Your task to perform on an android device: Check the settings for the Amazon Prime Video app Image 0: 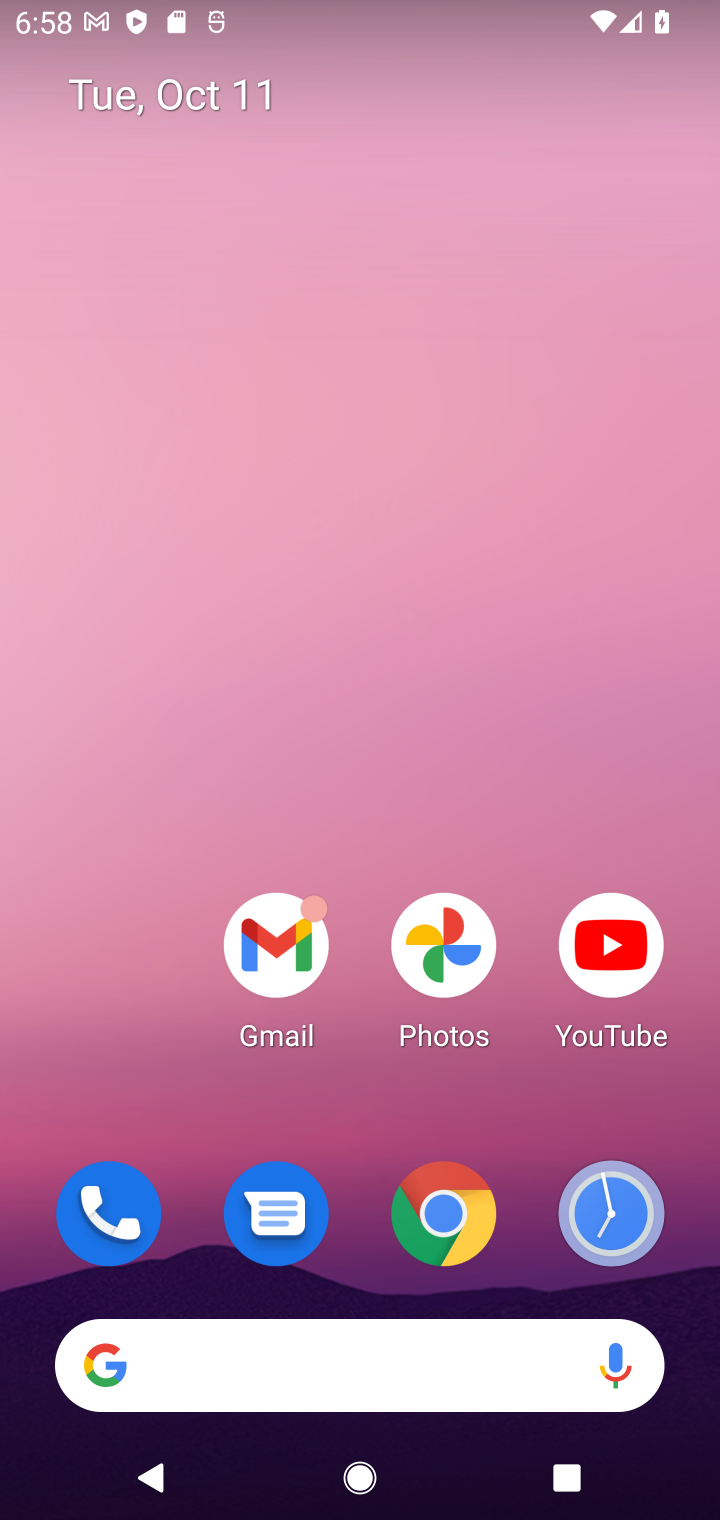
Step 0: drag from (381, 966) to (435, 355)
Your task to perform on an android device: Check the settings for the Amazon Prime Video app Image 1: 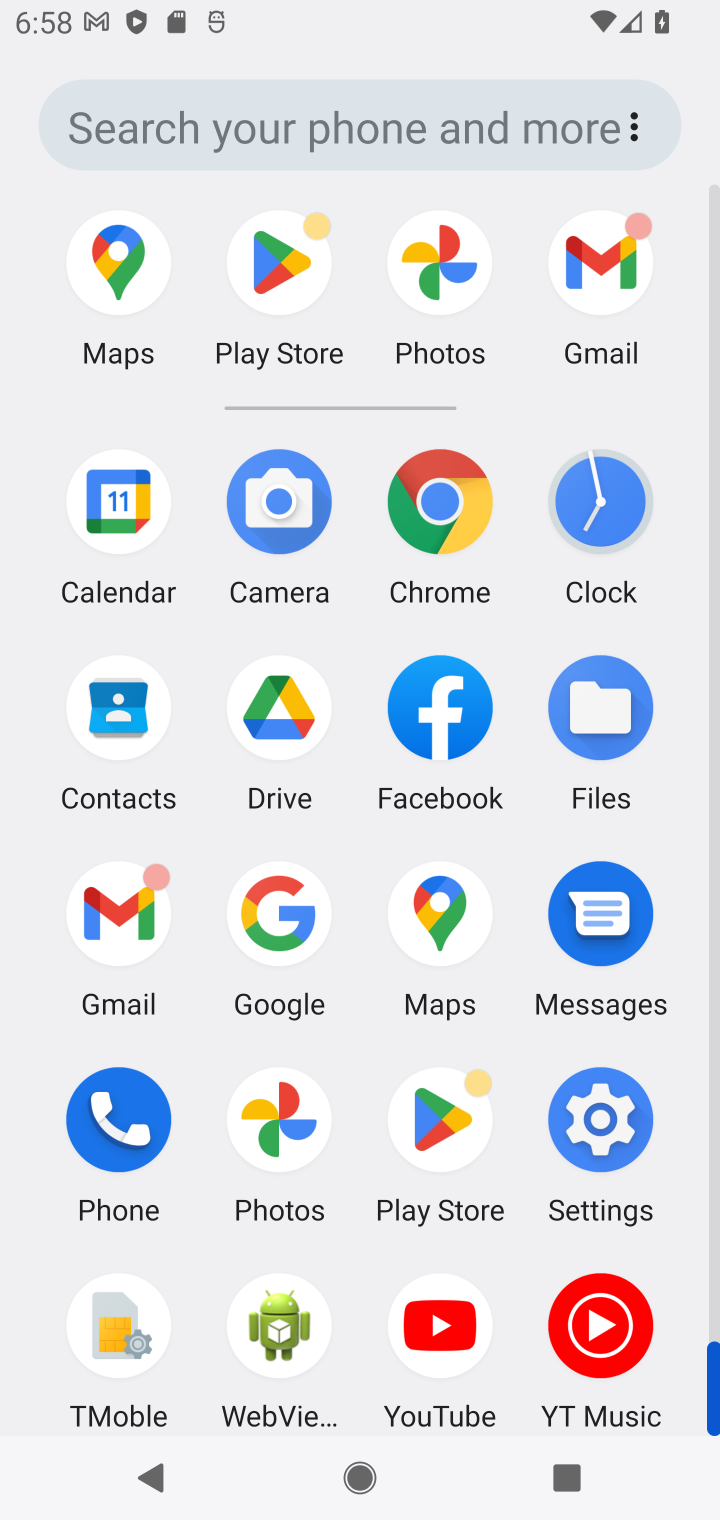
Step 1: click (440, 1102)
Your task to perform on an android device: Check the settings for the Amazon Prime Video app Image 2: 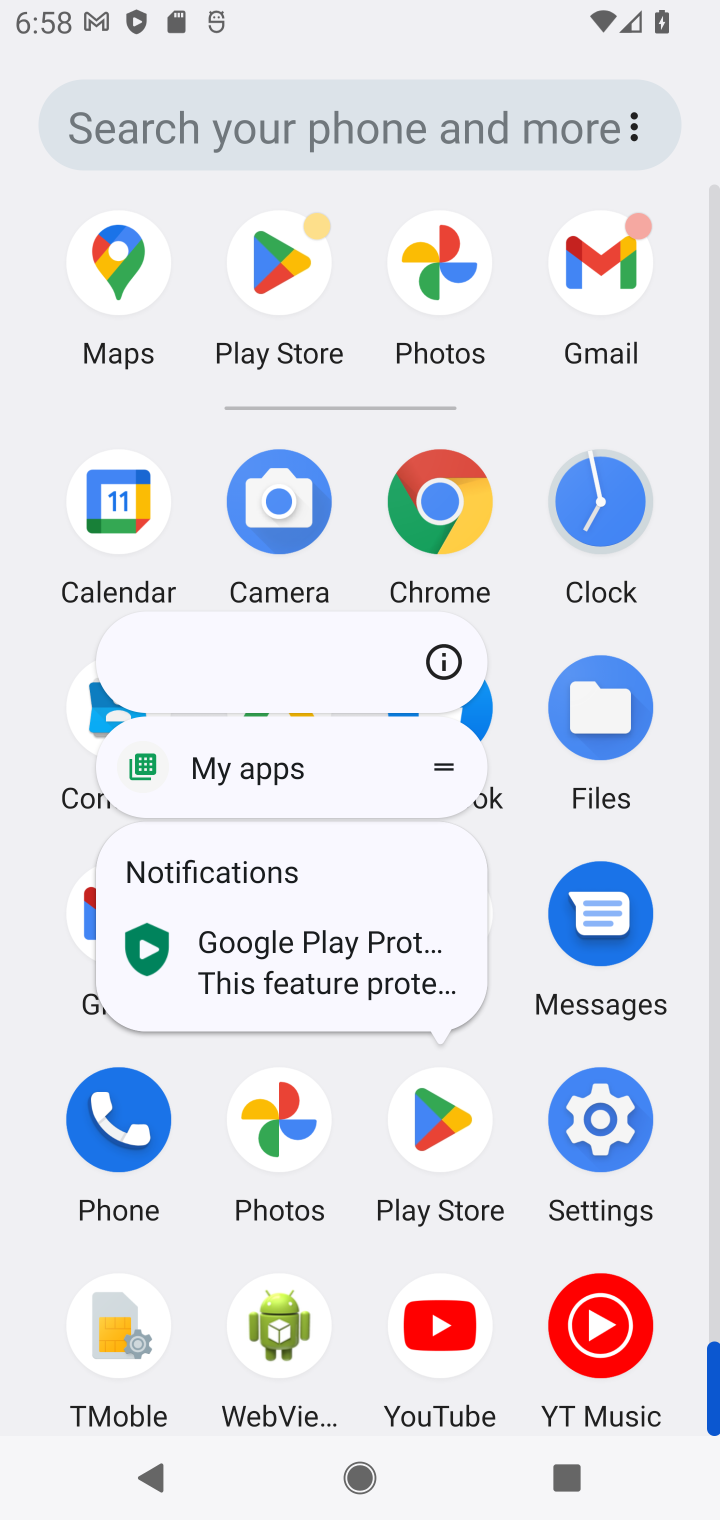
Step 2: click (409, 1125)
Your task to perform on an android device: Check the settings for the Amazon Prime Video app Image 3: 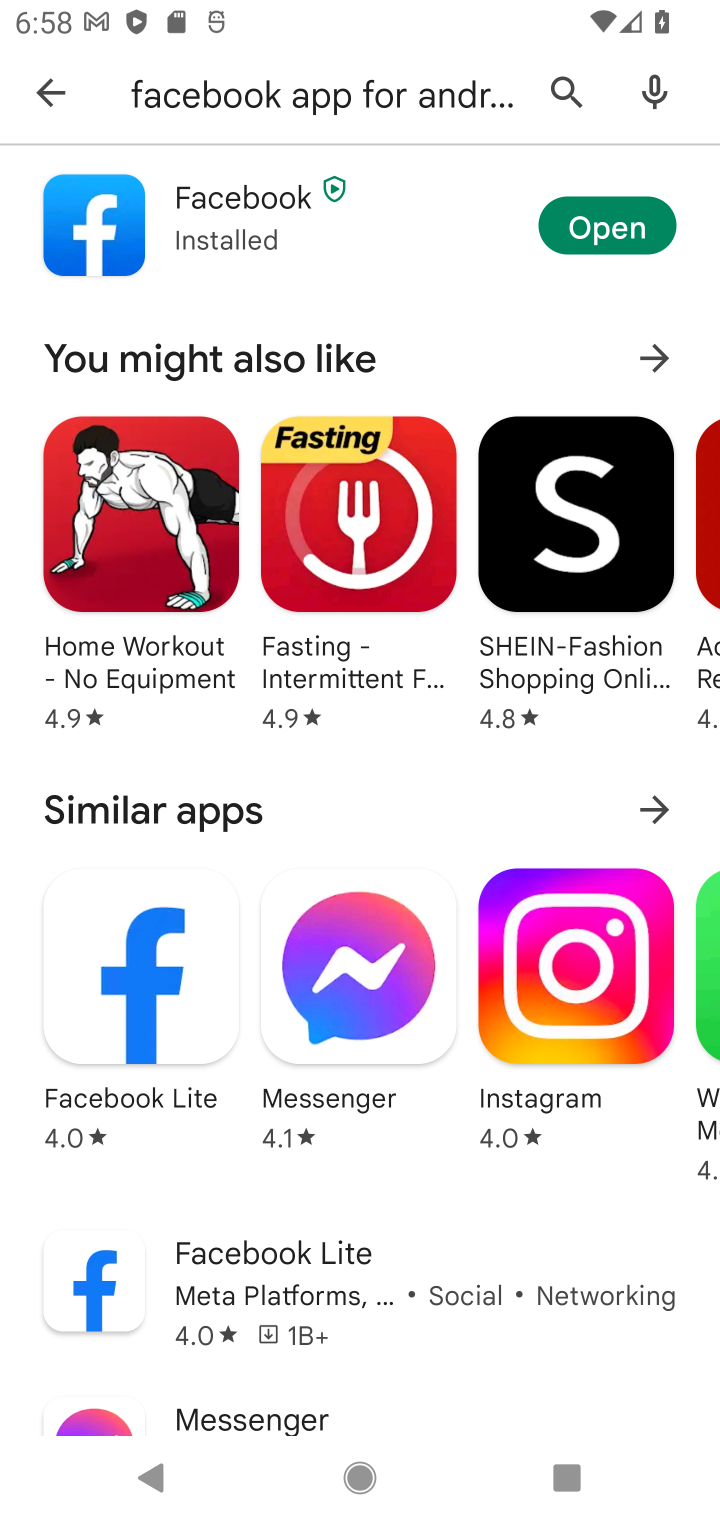
Step 3: click (560, 81)
Your task to perform on an android device: Check the settings for the Amazon Prime Video app Image 4: 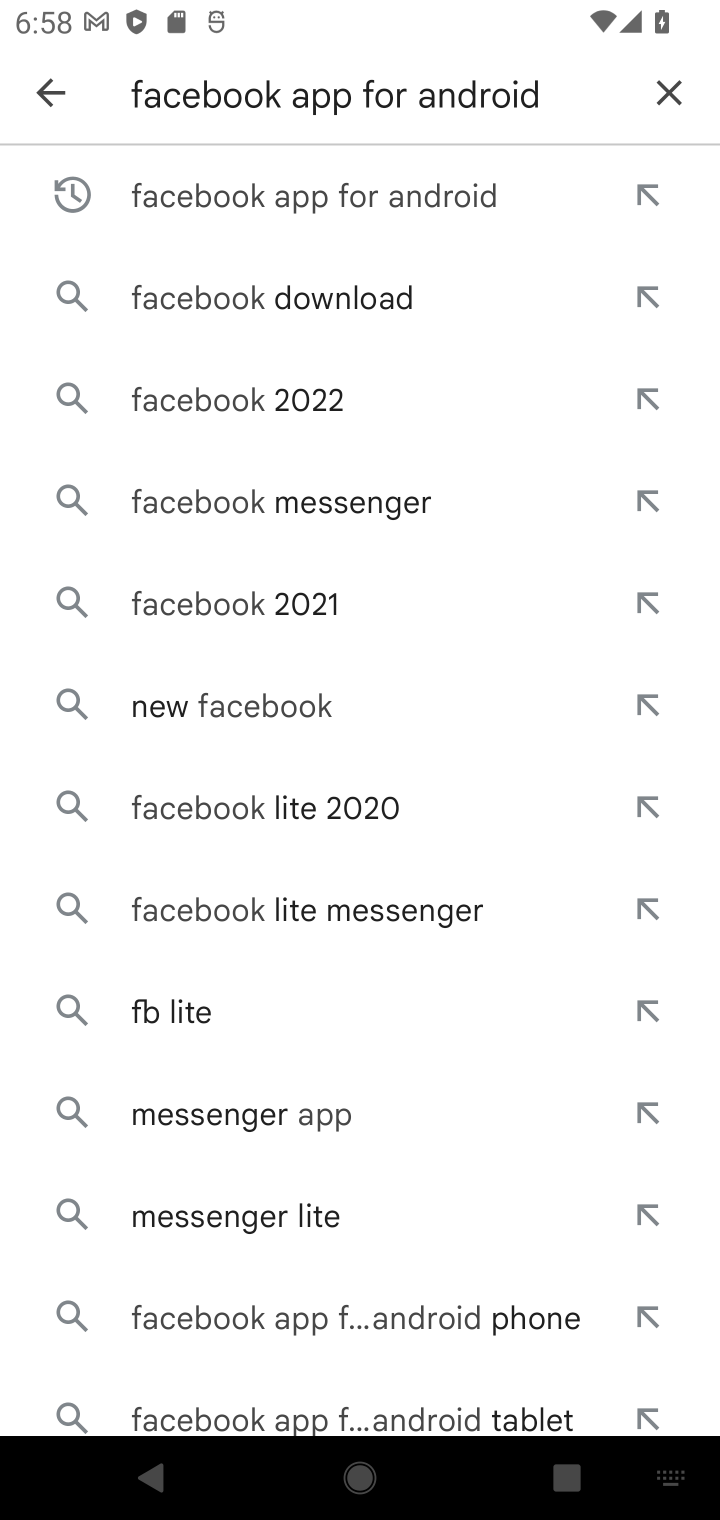
Step 4: click (651, 84)
Your task to perform on an android device: Check the settings for the Amazon Prime Video app Image 5: 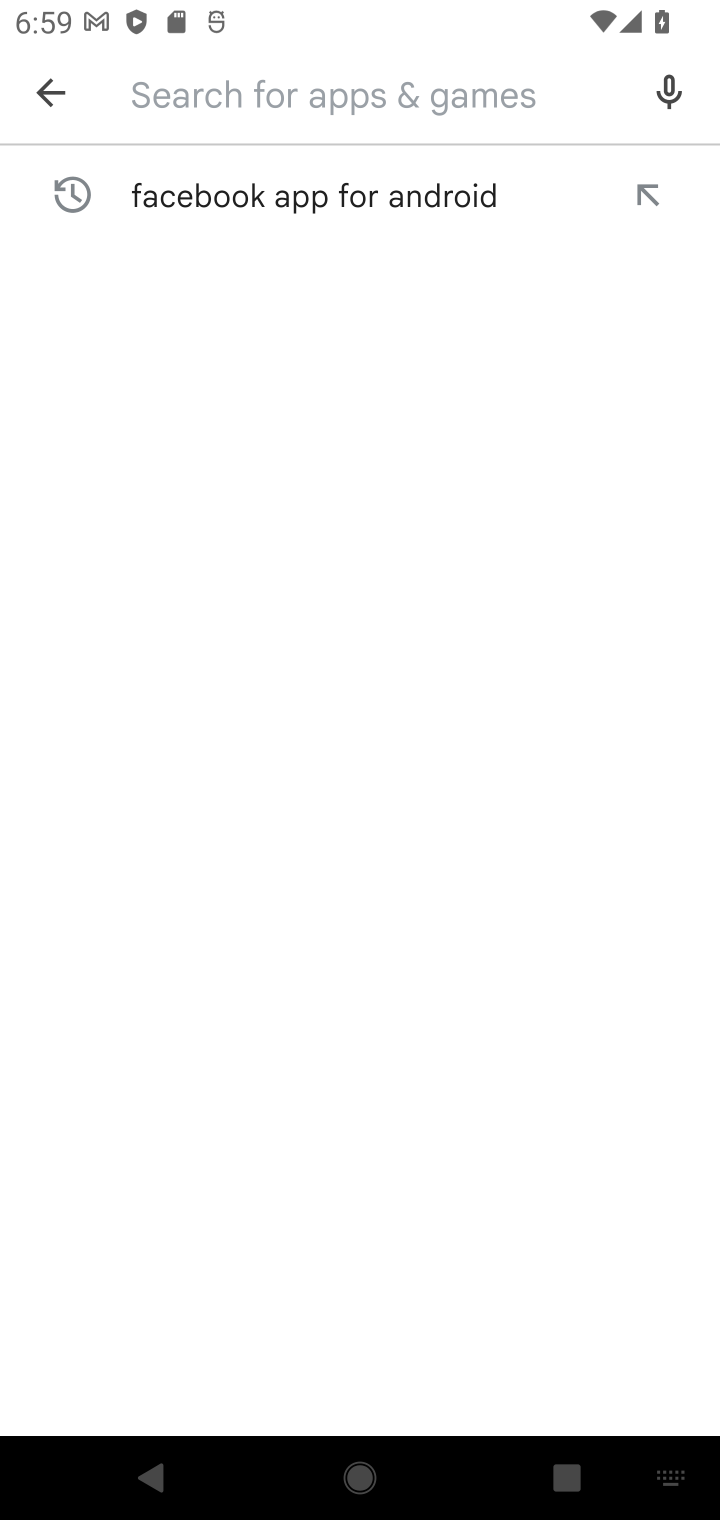
Step 5: click (244, 96)
Your task to perform on an android device: Check the settings for the Amazon Prime Video app Image 6: 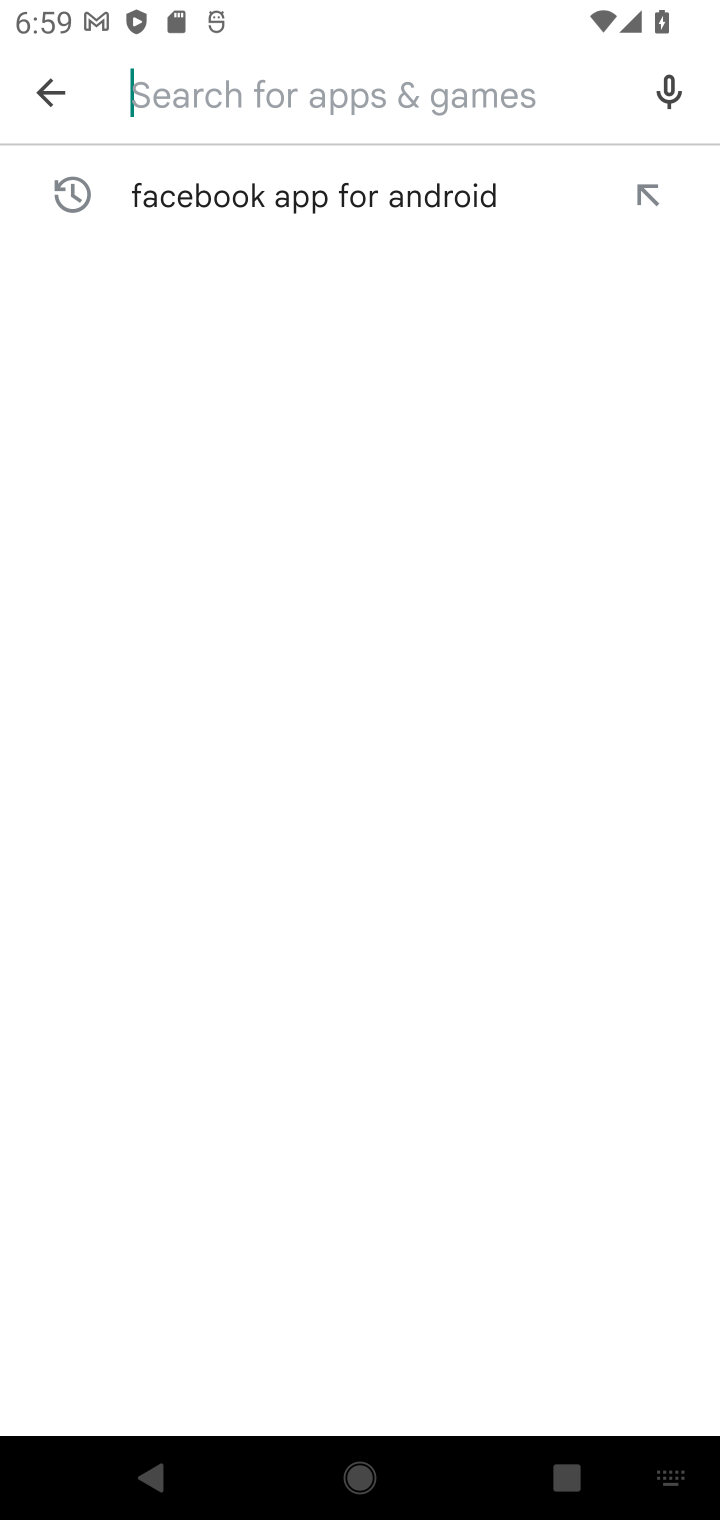
Step 6: click (308, 83)
Your task to perform on an android device: Check the settings for the Amazon Prime Video app Image 7: 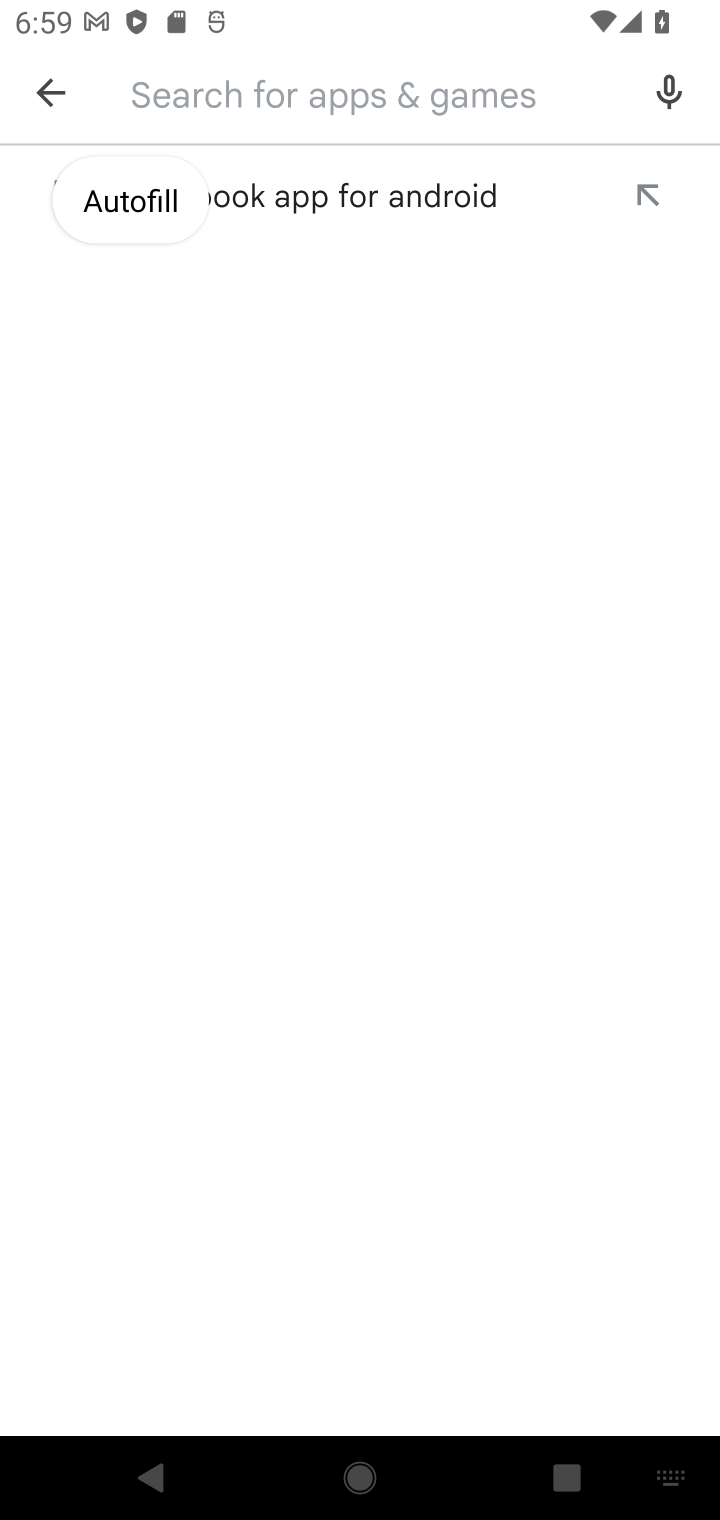
Step 7: click (280, 86)
Your task to perform on an android device: Check the settings for the Amazon Prime Video app Image 8: 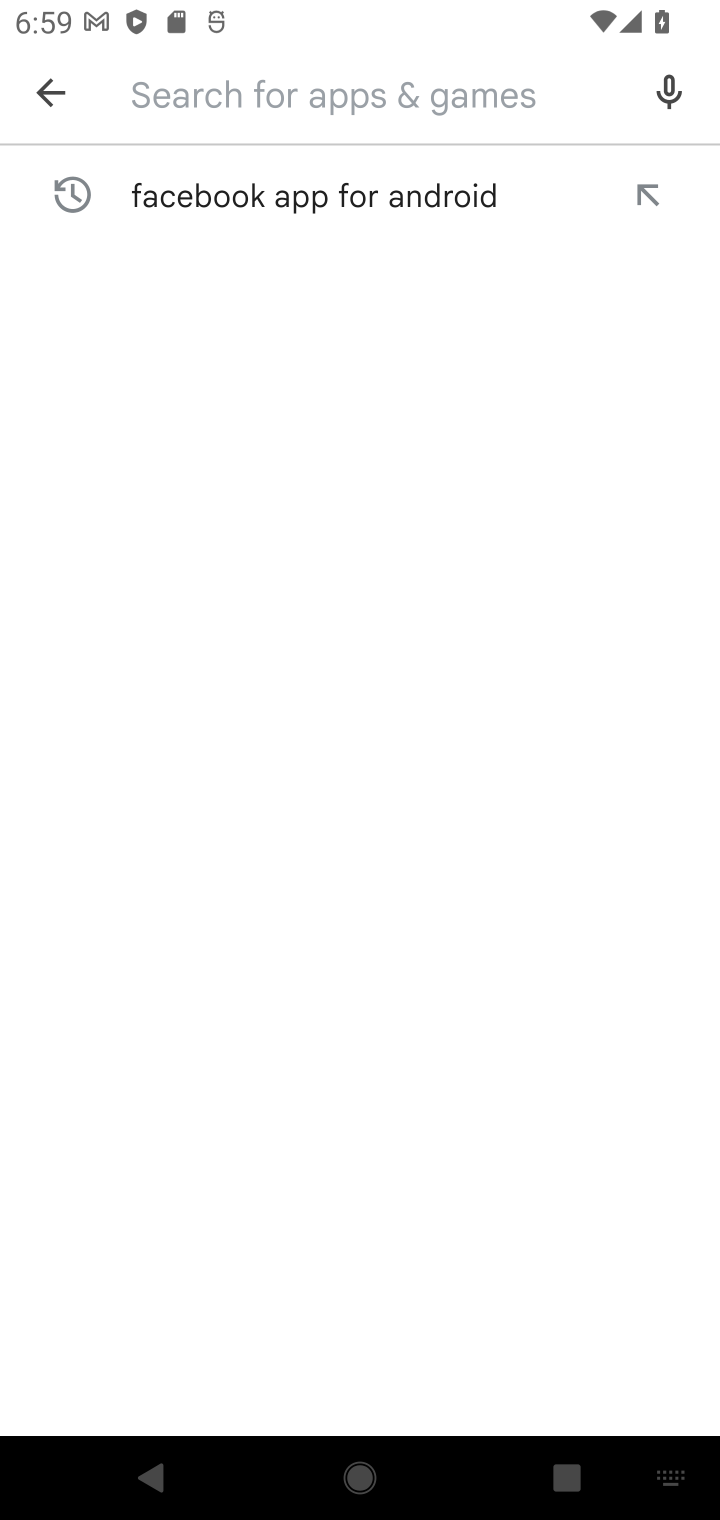
Step 8: type "Amazon Prime Video app "
Your task to perform on an android device: Check the settings for the Amazon Prime Video app Image 9: 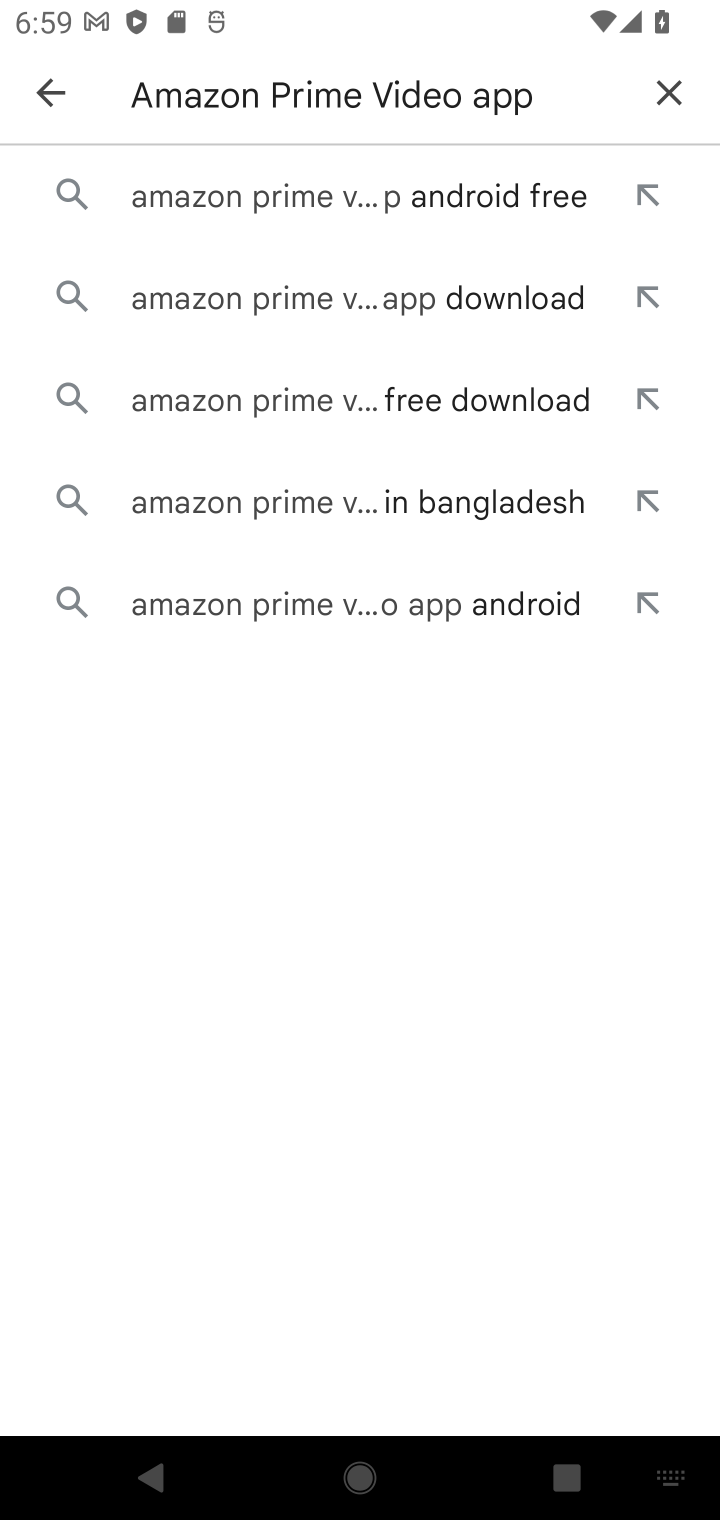
Step 9: click (379, 206)
Your task to perform on an android device: Check the settings for the Amazon Prime Video app Image 10: 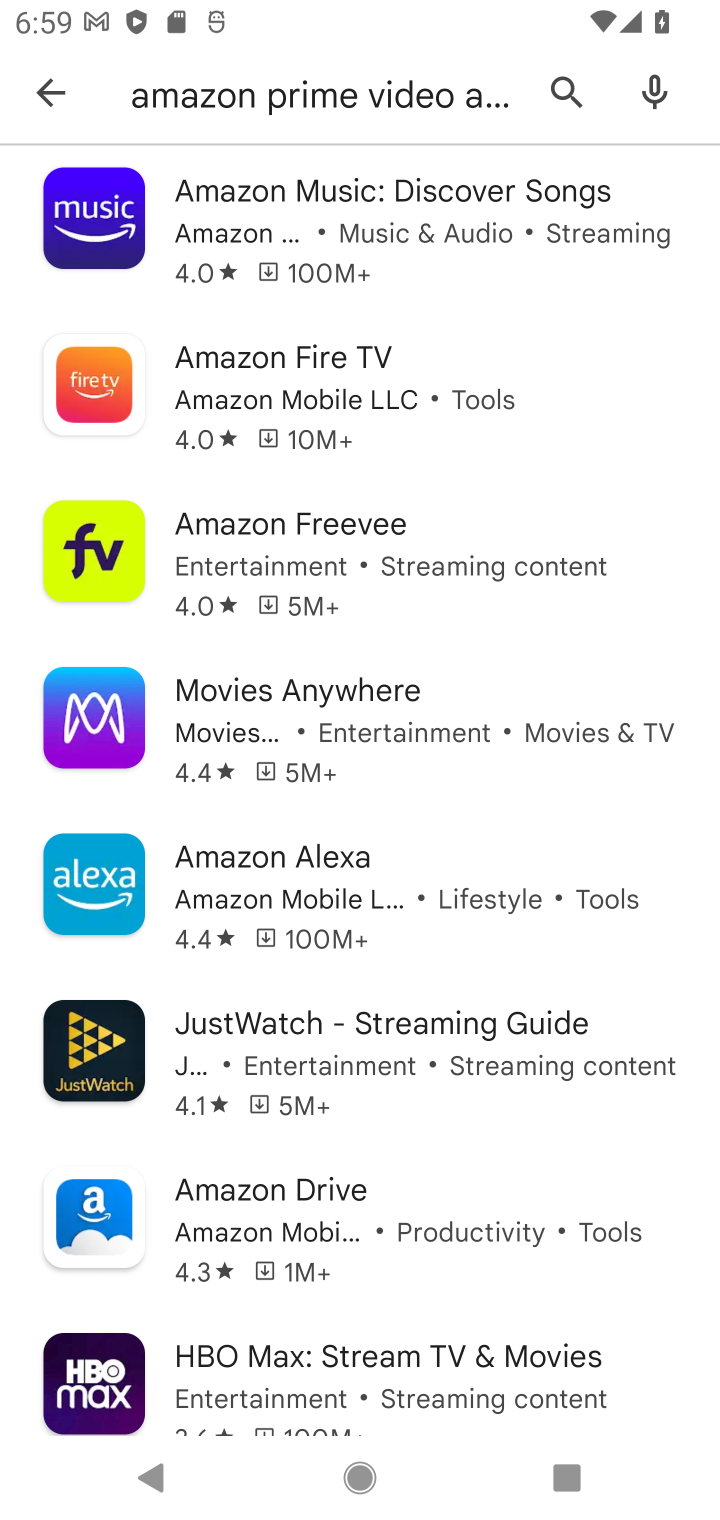
Step 10: click (396, 235)
Your task to perform on an android device: Check the settings for the Amazon Prime Video app Image 11: 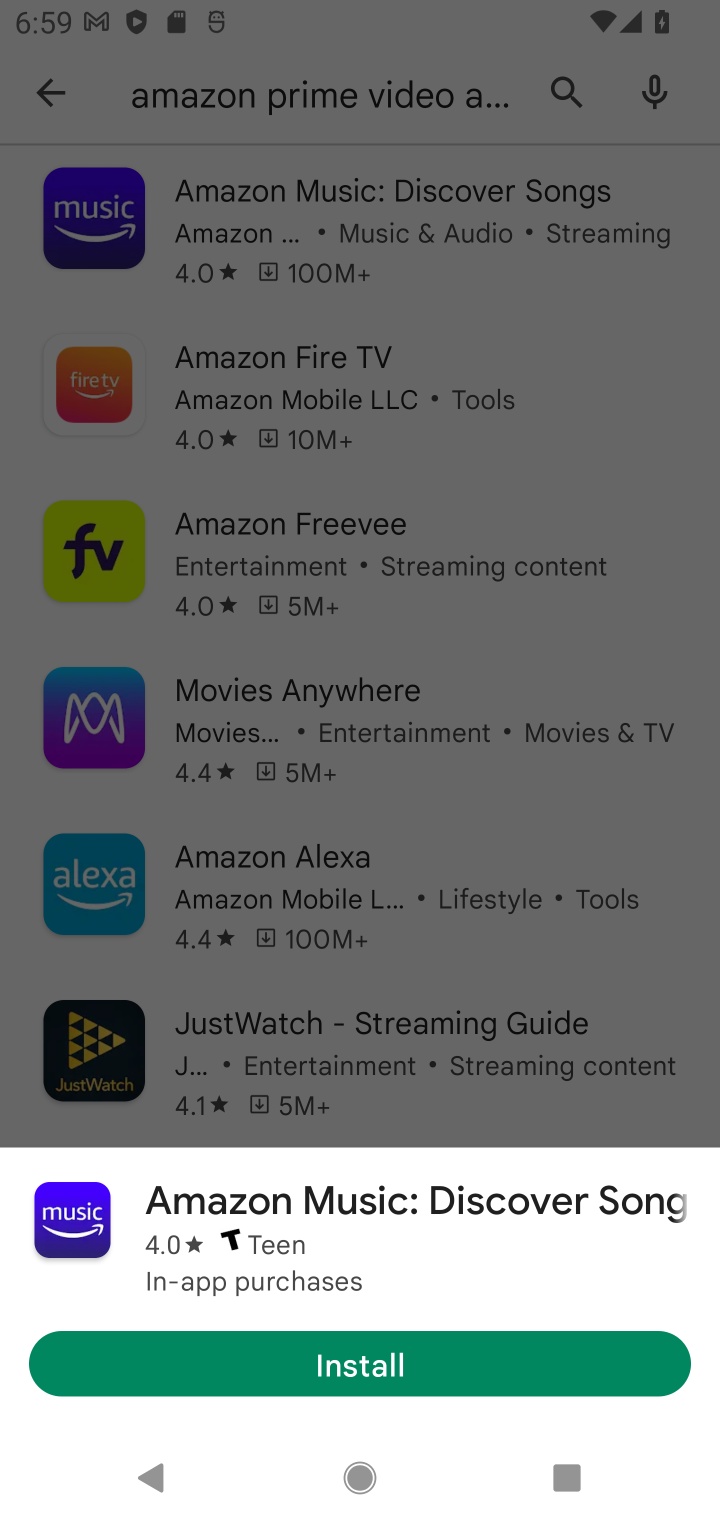
Step 11: click (354, 1362)
Your task to perform on an android device: Check the settings for the Amazon Prime Video app Image 12: 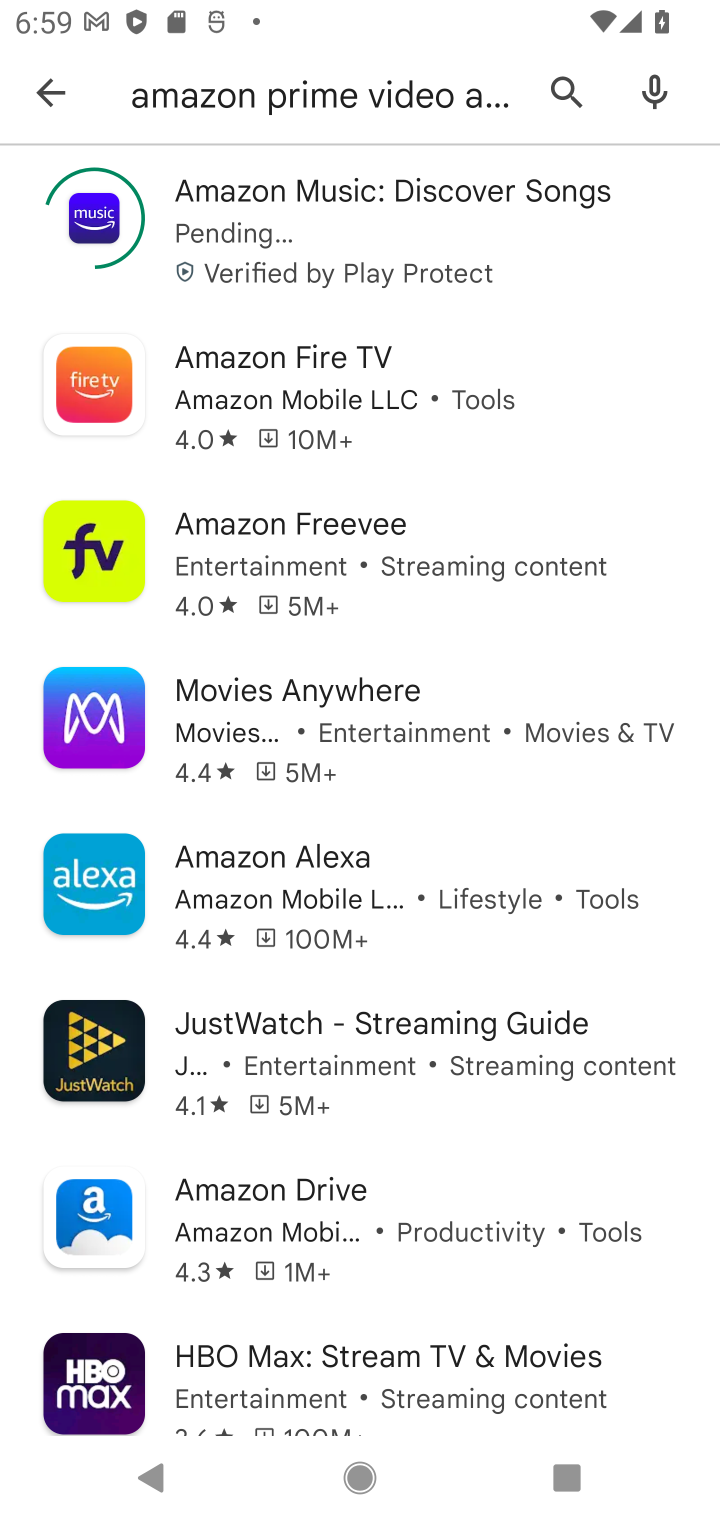
Step 12: click (334, 213)
Your task to perform on an android device: Check the settings for the Amazon Prime Video app Image 13: 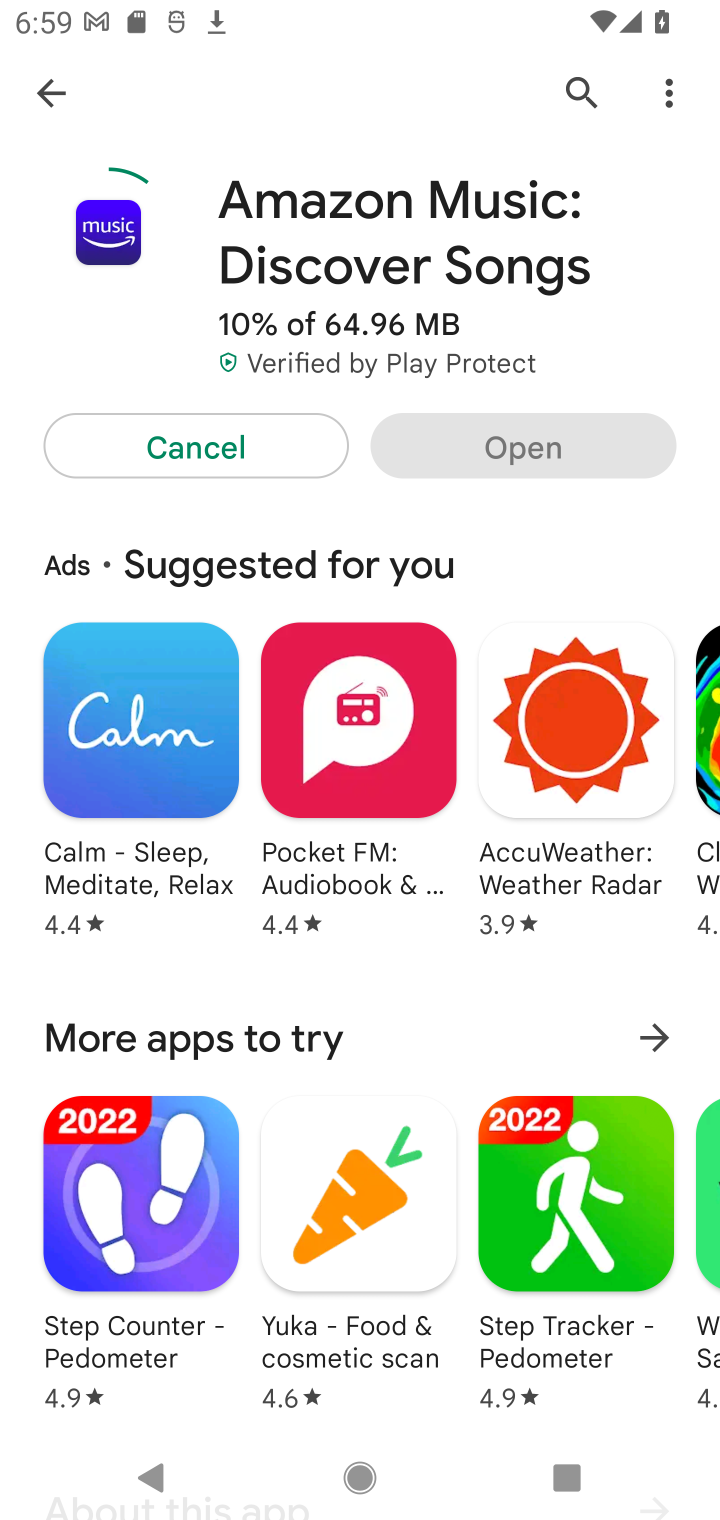
Step 13: click (222, 463)
Your task to perform on an android device: Check the settings for the Amazon Prime Video app Image 14: 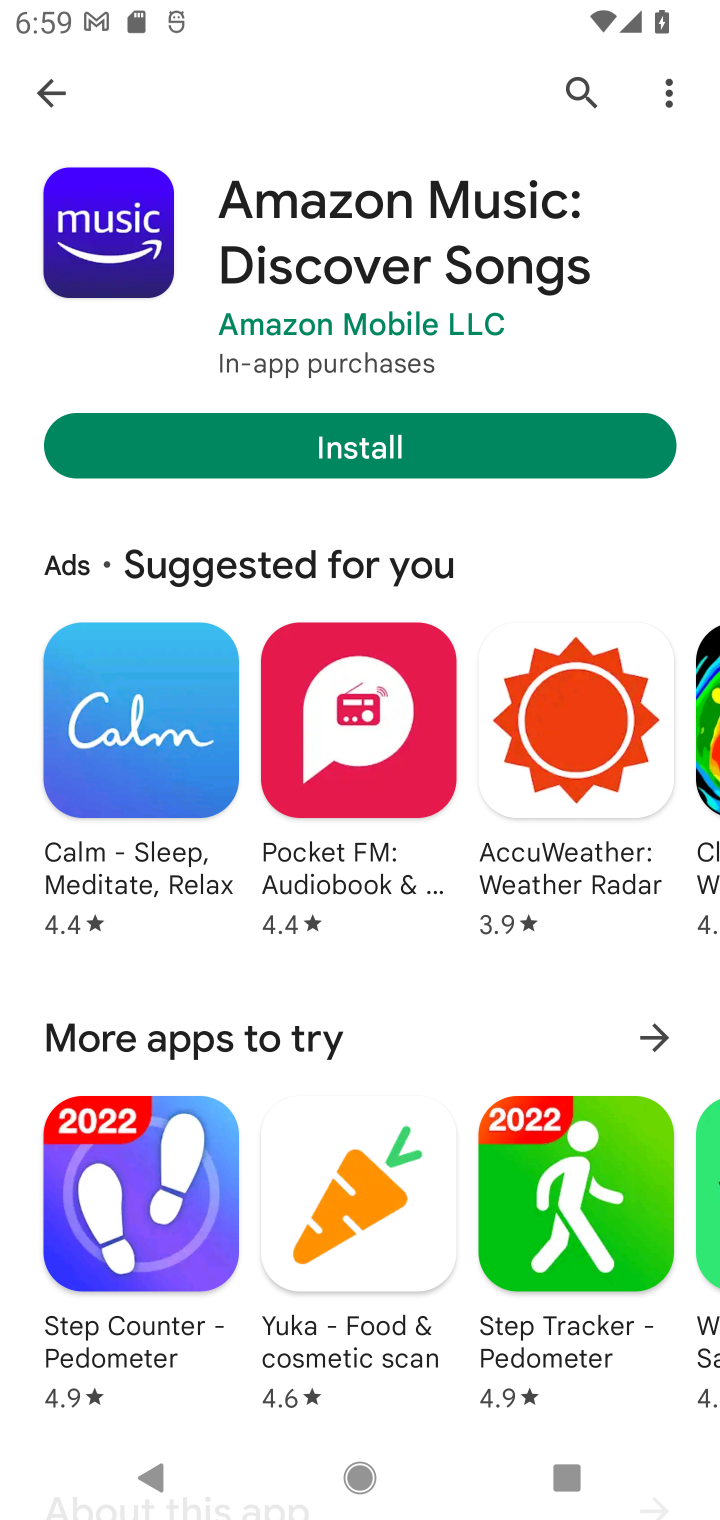
Step 14: press back button
Your task to perform on an android device: Check the settings for the Amazon Prime Video app Image 15: 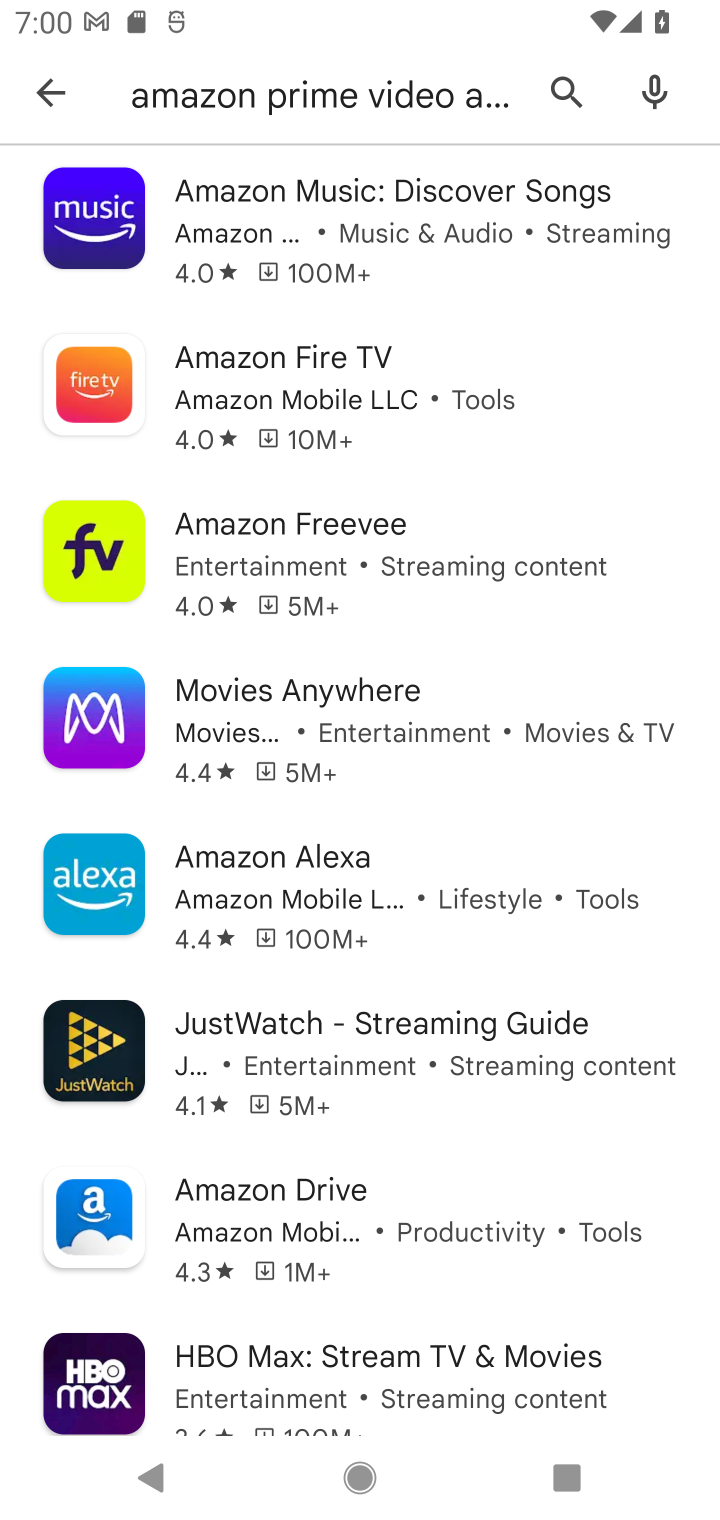
Step 15: drag from (290, 1275) to (446, 460)
Your task to perform on an android device: Check the settings for the Amazon Prime Video app Image 16: 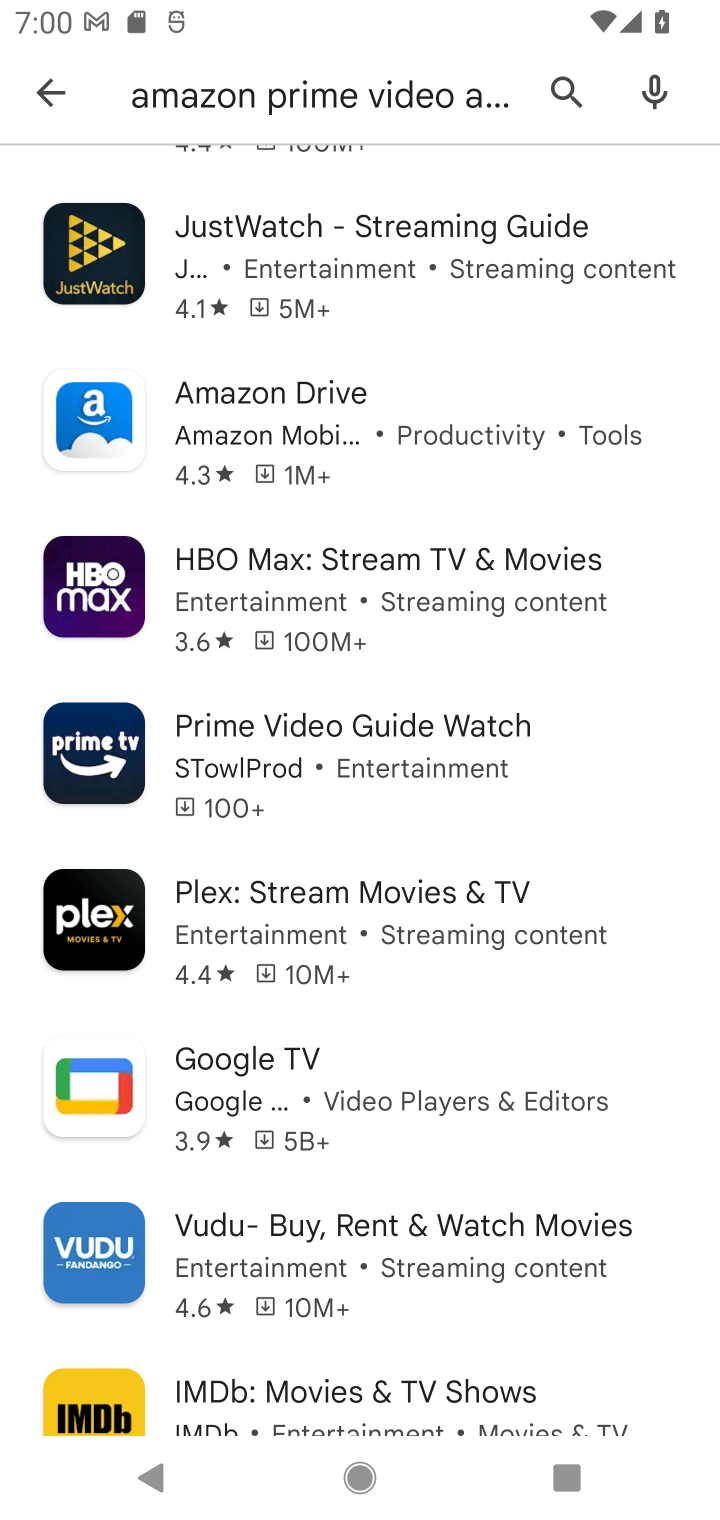
Step 16: drag from (324, 1229) to (324, 637)
Your task to perform on an android device: Check the settings for the Amazon Prime Video app Image 17: 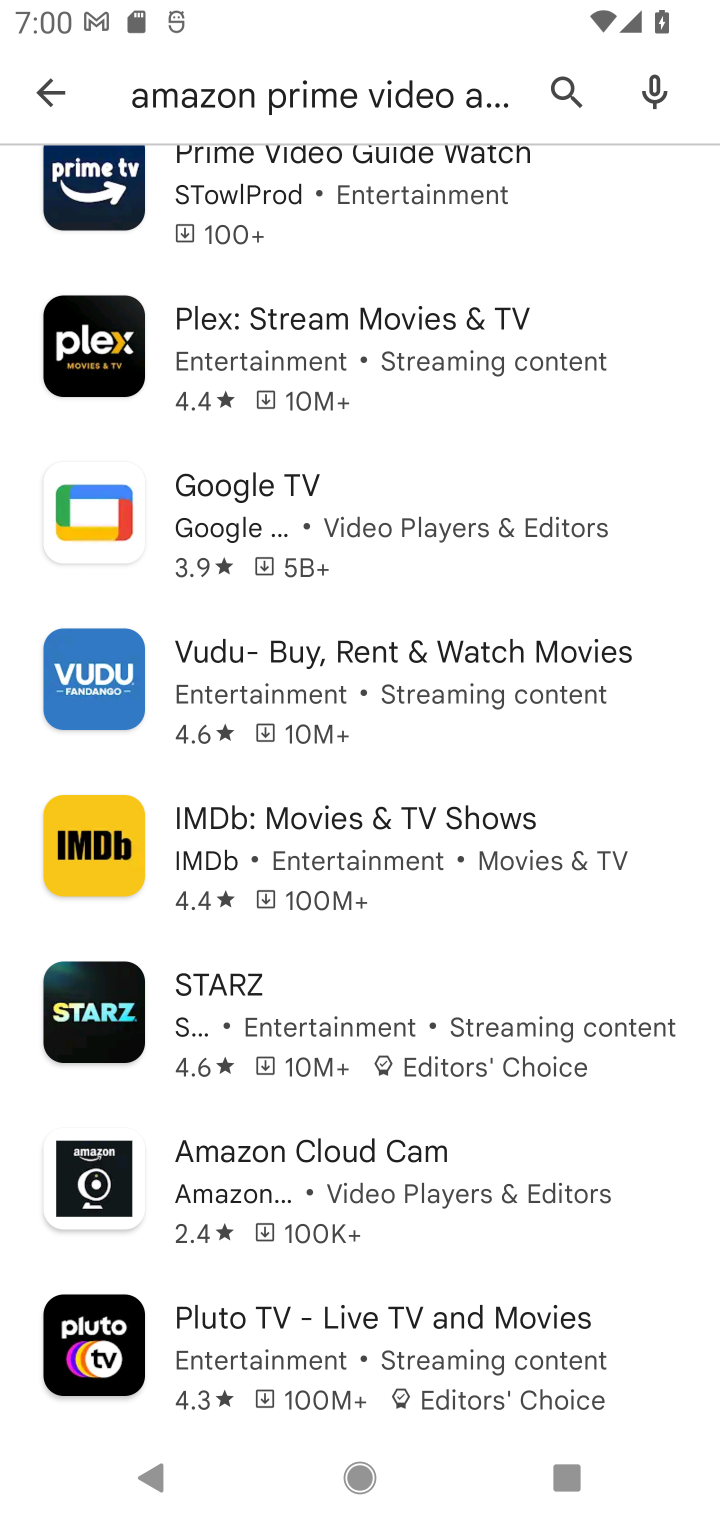
Step 17: drag from (389, 301) to (365, 621)
Your task to perform on an android device: Check the settings for the Amazon Prime Video app Image 18: 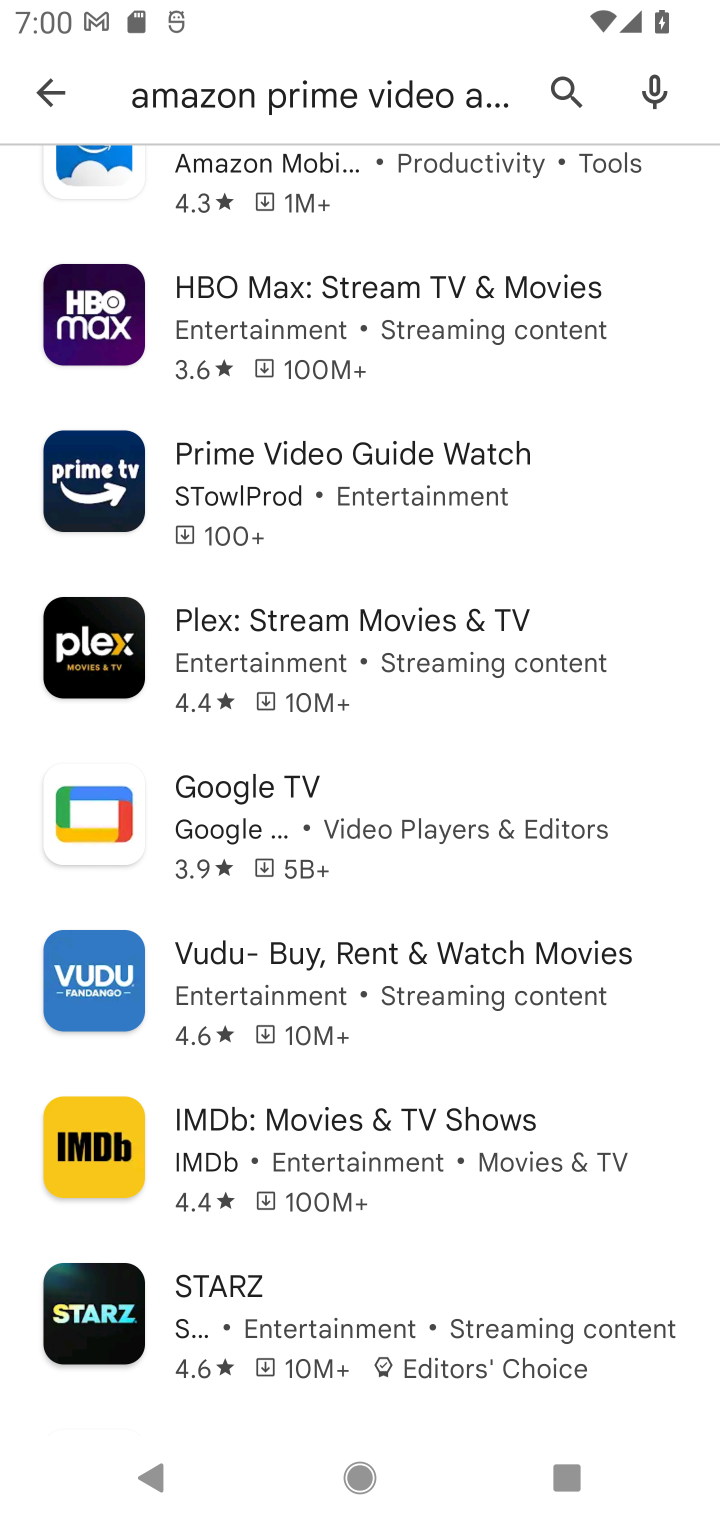
Step 18: click (357, 476)
Your task to perform on an android device: Check the settings for the Amazon Prime Video app Image 19: 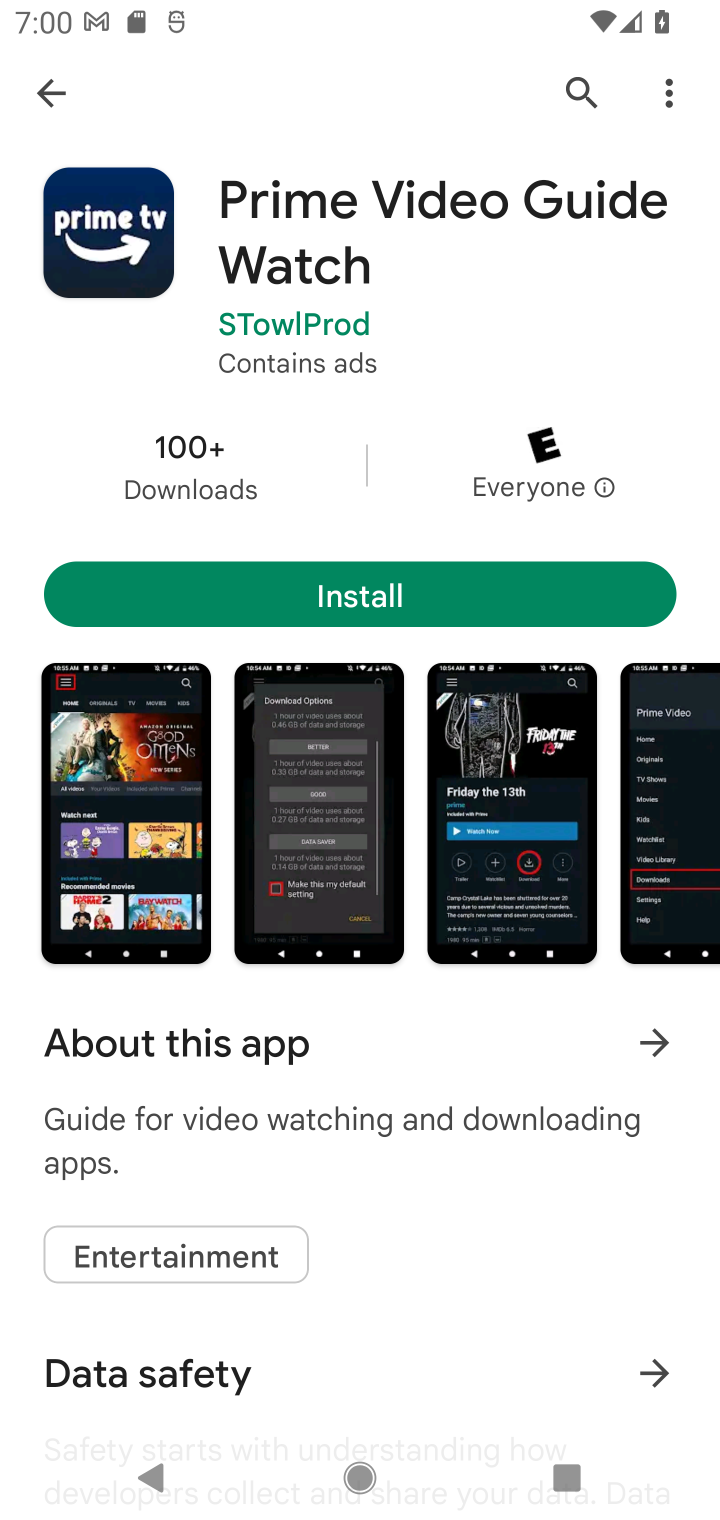
Step 19: click (498, 580)
Your task to perform on an android device: Check the settings for the Amazon Prime Video app Image 20: 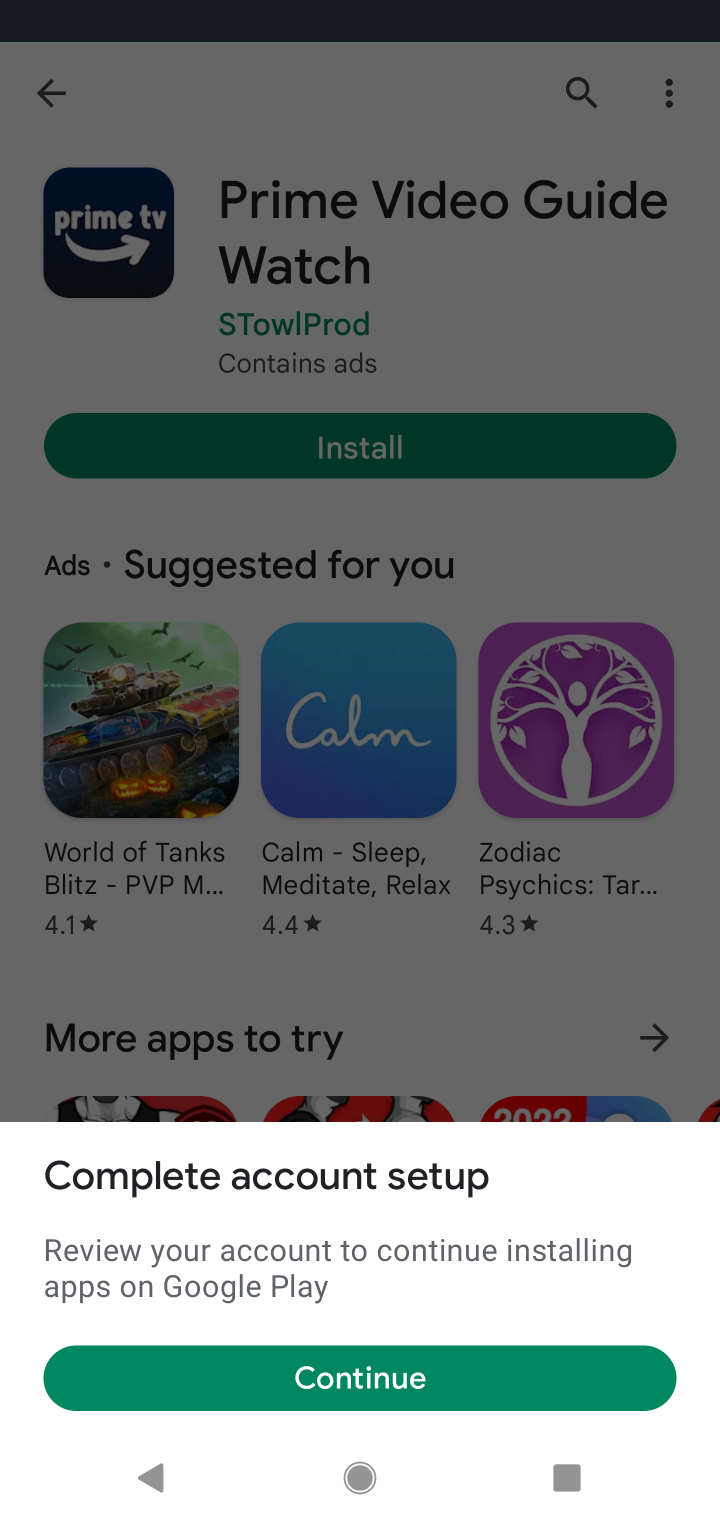
Step 20: task complete